Your task to perform on an android device: all mails in gmail Image 0: 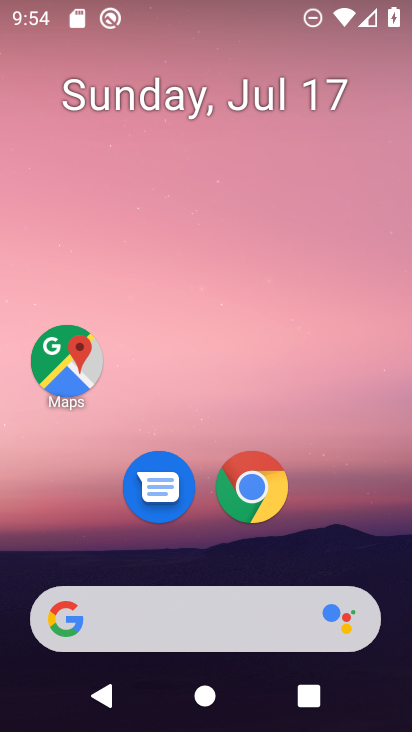
Step 0: press home button
Your task to perform on an android device: all mails in gmail Image 1: 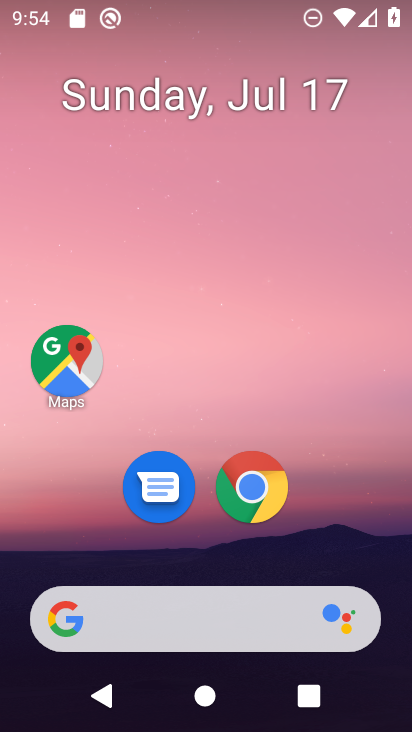
Step 1: drag from (321, 554) to (320, 46)
Your task to perform on an android device: all mails in gmail Image 2: 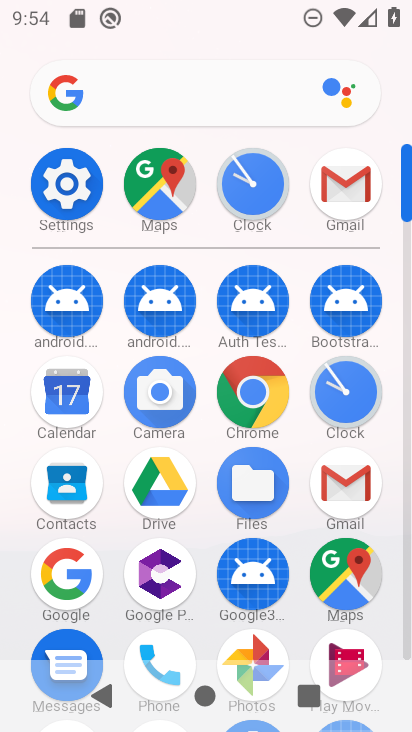
Step 2: click (343, 189)
Your task to perform on an android device: all mails in gmail Image 3: 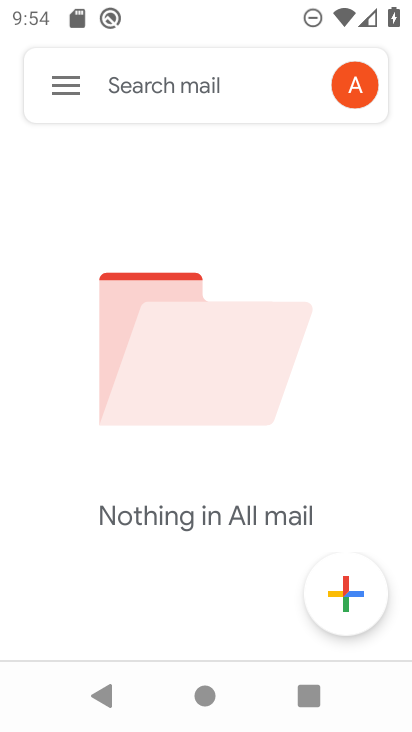
Step 3: click (73, 87)
Your task to perform on an android device: all mails in gmail Image 4: 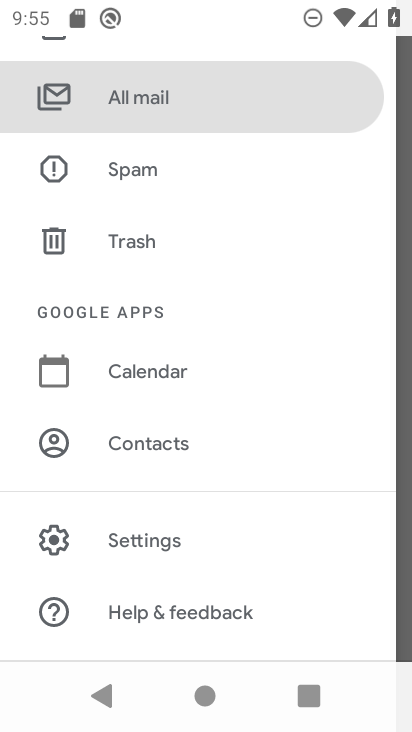
Step 4: click (149, 102)
Your task to perform on an android device: all mails in gmail Image 5: 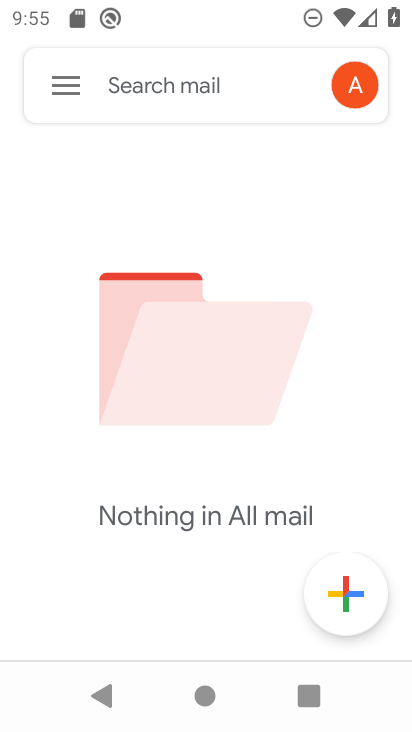
Step 5: task complete